Your task to perform on an android device: turn off notifications settings in the gmail app Image 0: 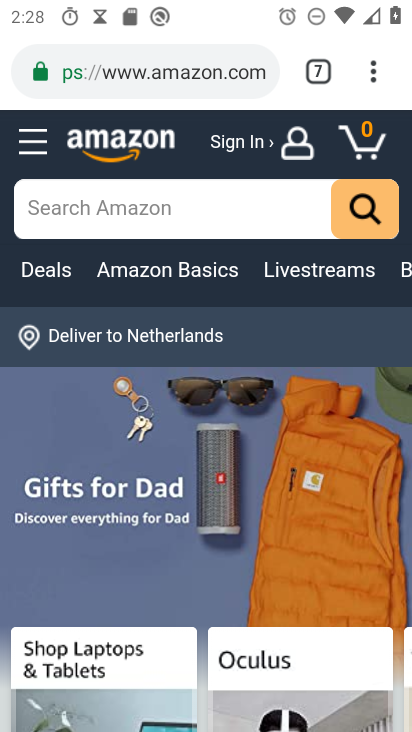
Step 0: press home button
Your task to perform on an android device: turn off notifications settings in the gmail app Image 1: 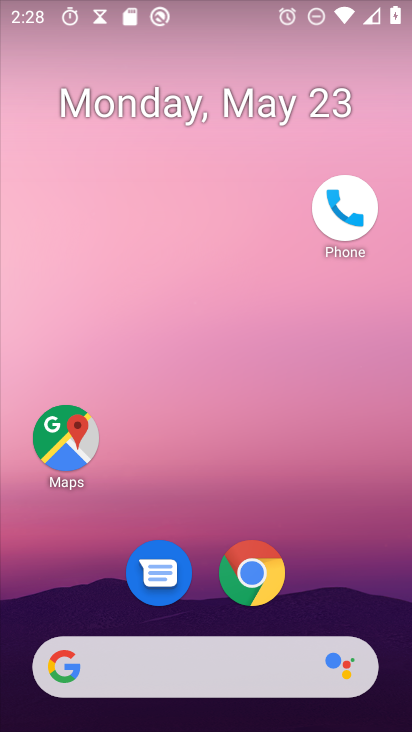
Step 1: drag from (187, 617) to (304, 151)
Your task to perform on an android device: turn off notifications settings in the gmail app Image 2: 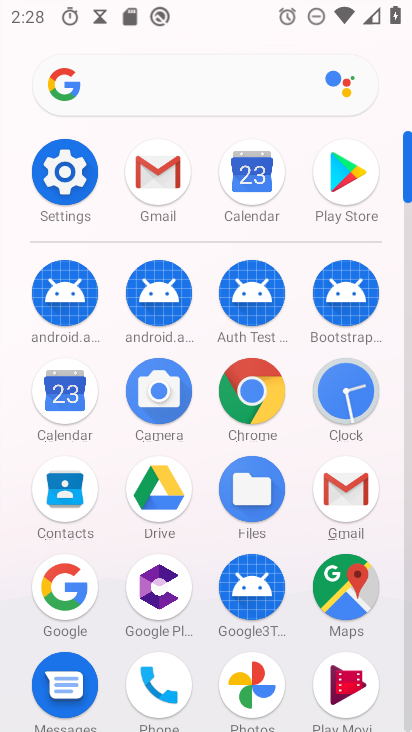
Step 2: click (160, 185)
Your task to perform on an android device: turn off notifications settings in the gmail app Image 3: 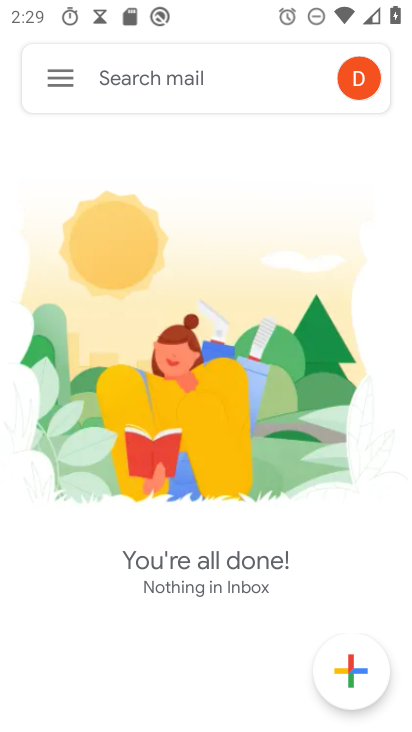
Step 3: click (58, 80)
Your task to perform on an android device: turn off notifications settings in the gmail app Image 4: 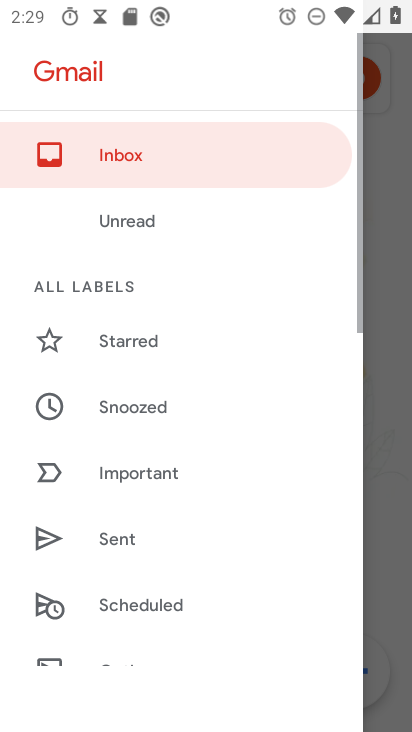
Step 4: drag from (172, 656) to (351, 16)
Your task to perform on an android device: turn off notifications settings in the gmail app Image 5: 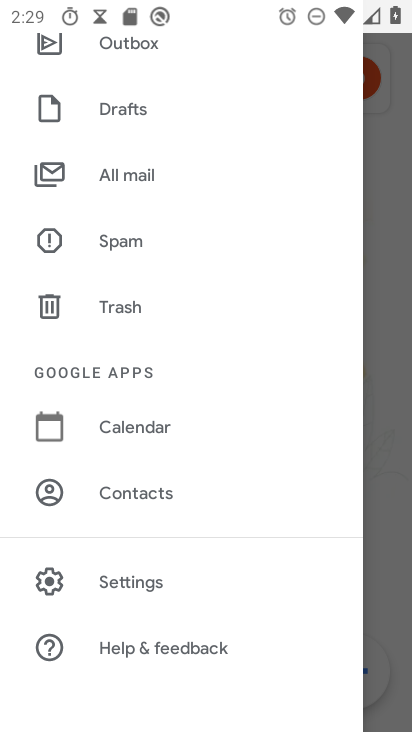
Step 5: click (156, 589)
Your task to perform on an android device: turn off notifications settings in the gmail app Image 6: 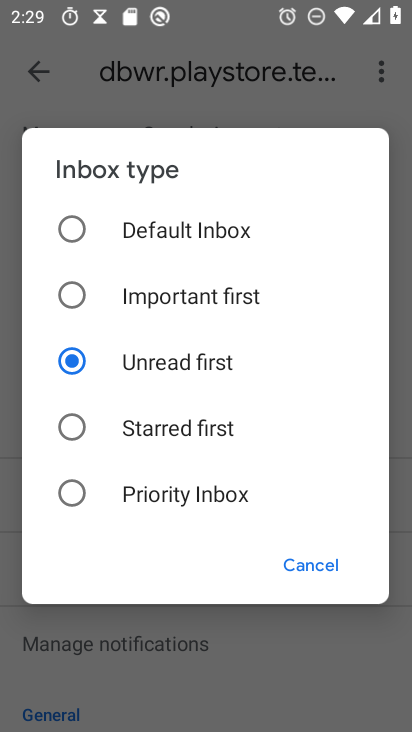
Step 6: click (292, 561)
Your task to perform on an android device: turn off notifications settings in the gmail app Image 7: 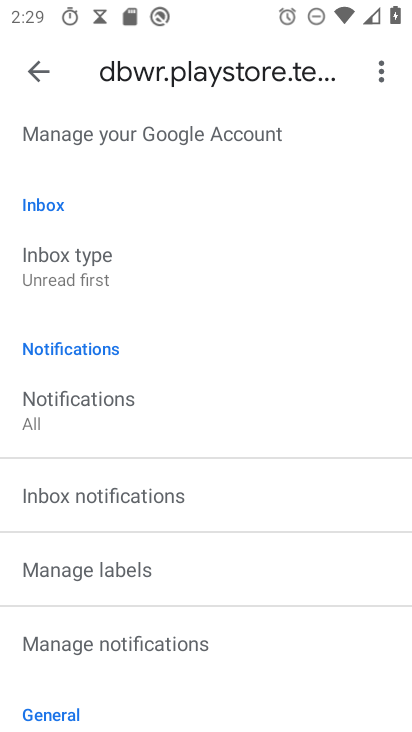
Step 7: click (108, 424)
Your task to perform on an android device: turn off notifications settings in the gmail app Image 8: 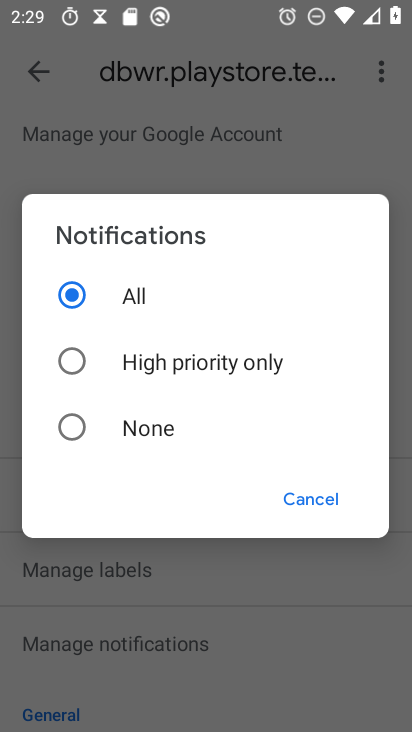
Step 8: click (84, 425)
Your task to perform on an android device: turn off notifications settings in the gmail app Image 9: 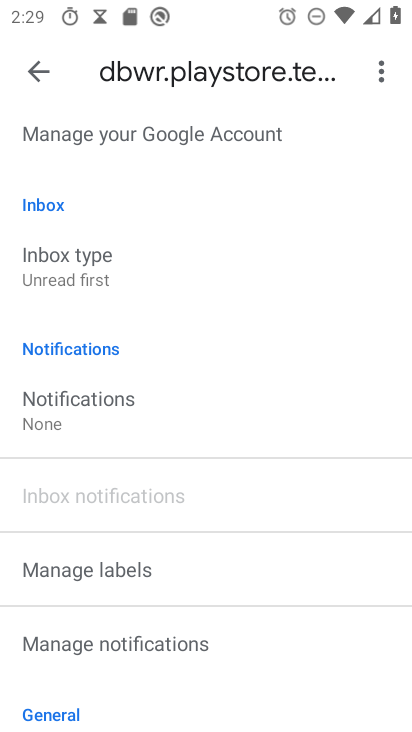
Step 9: task complete